Your task to perform on an android device: check storage Image 0: 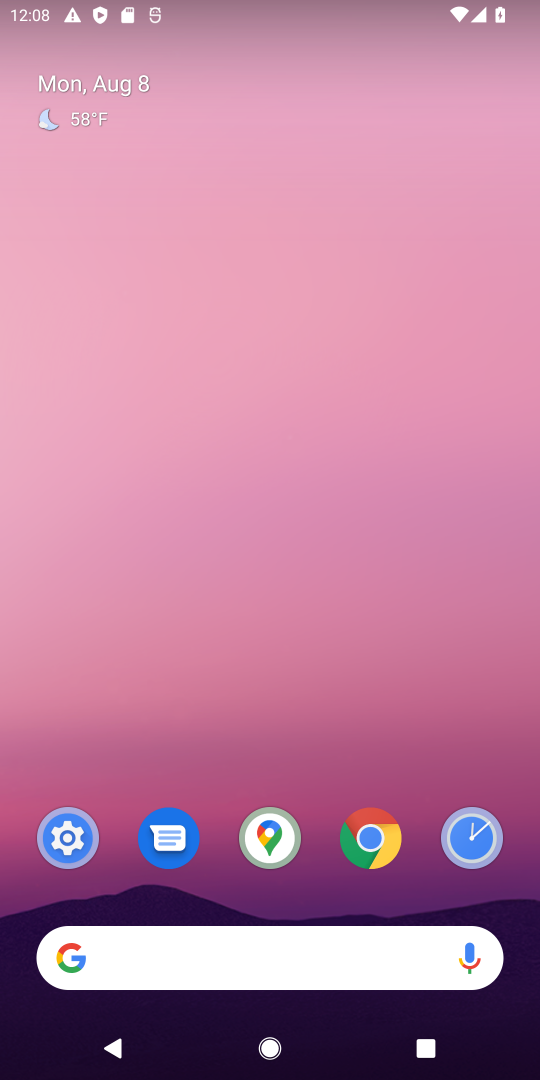
Step 0: press home button
Your task to perform on an android device: check storage Image 1: 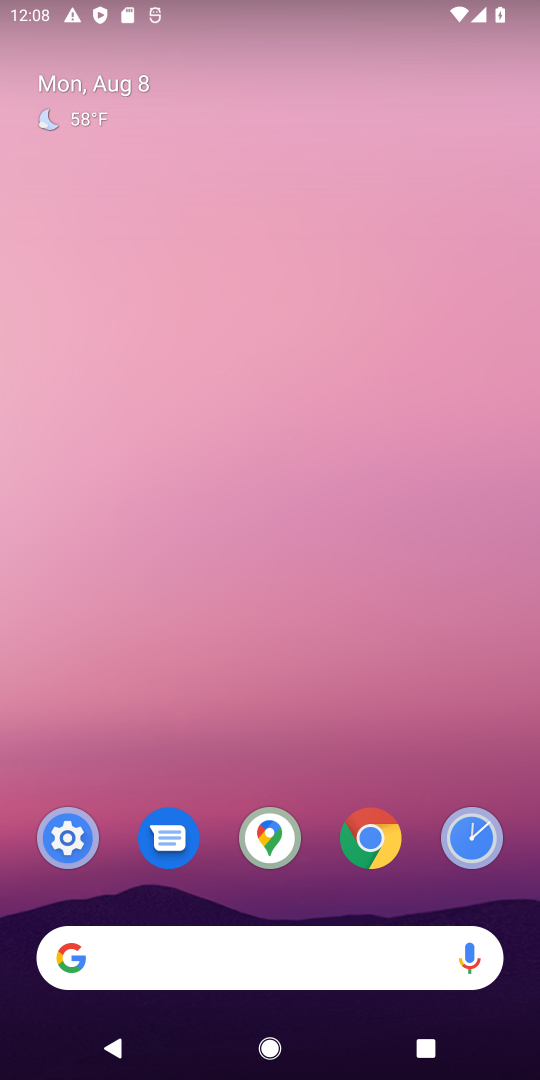
Step 1: drag from (322, 907) to (370, 0)
Your task to perform on an android device: check storage Image 2: 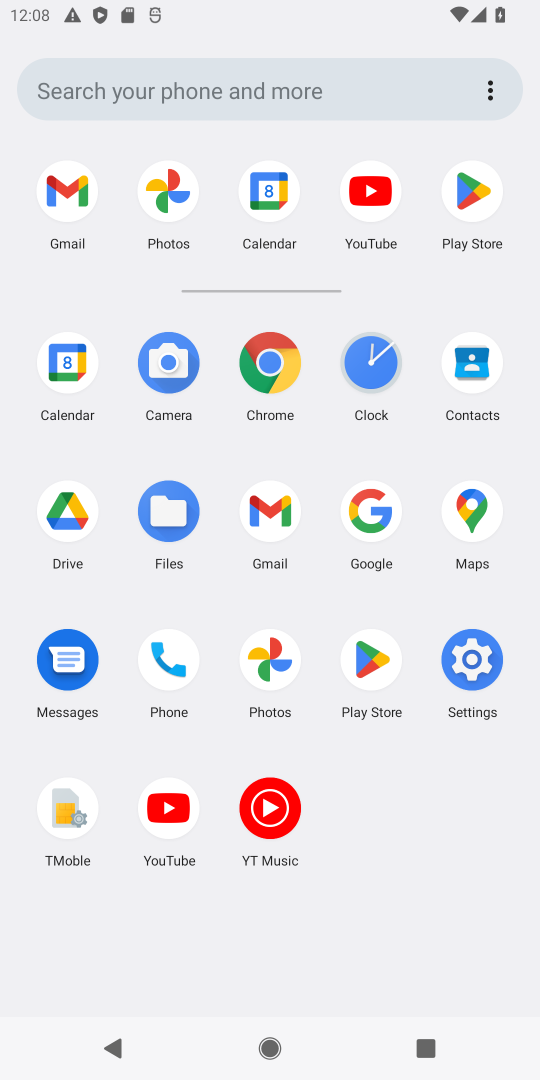
Step 2: click (497, 661)
Your task to perform on an android device: check storage Image 3: 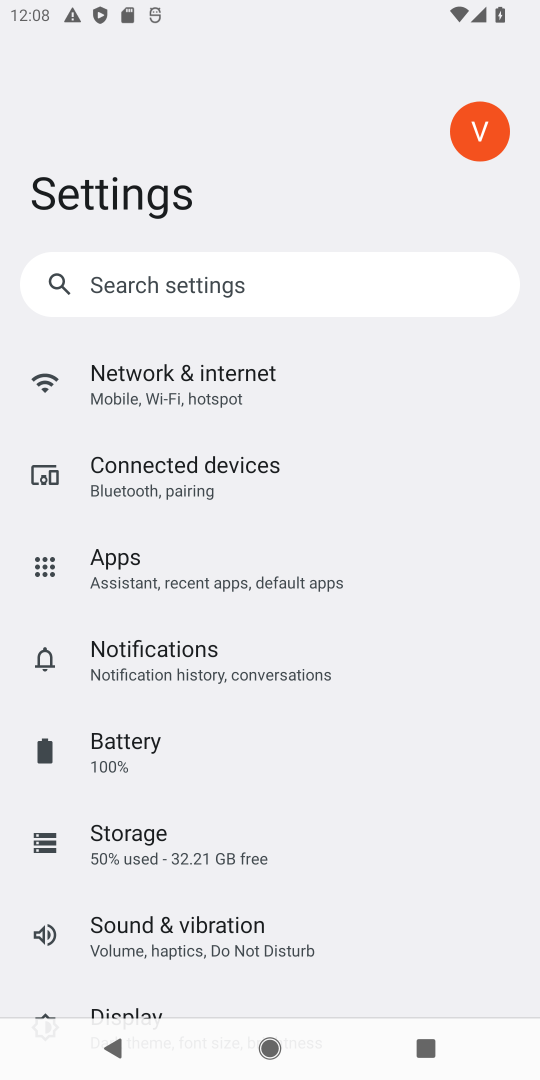
Step 3: click (127, 837)
Your task to perform on an android device: check storage Image 4: 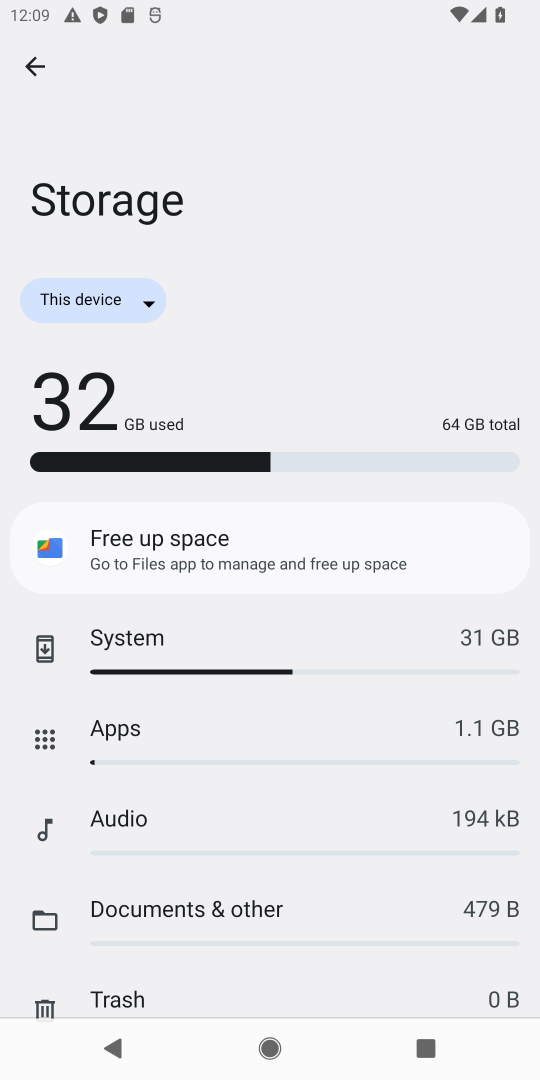
Step 4: task complete